Your task to perform on an android device: Open Google Maps Image 0: 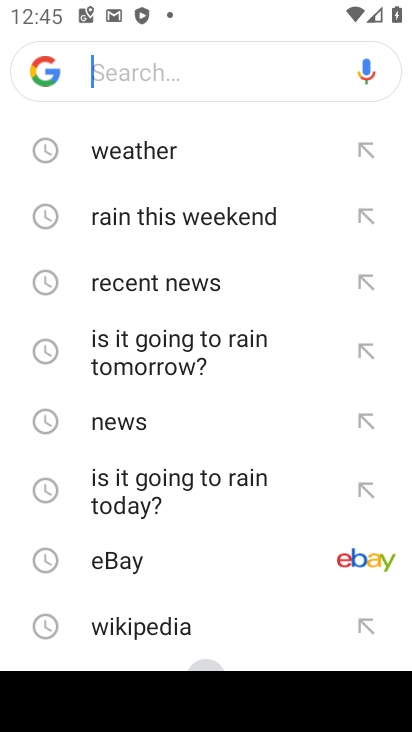
Step 0: press home button
Your task to perform on an android device: Open Google Maps Image 1: 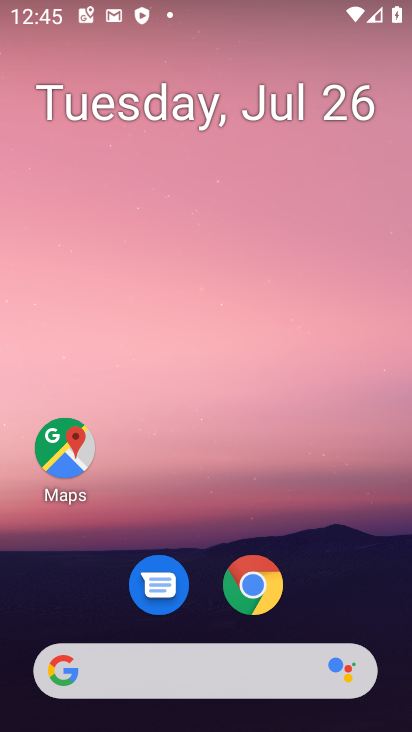
Step 1: click (63, 458)
Your task to perform on an android device: Open Google Maps Image 2: 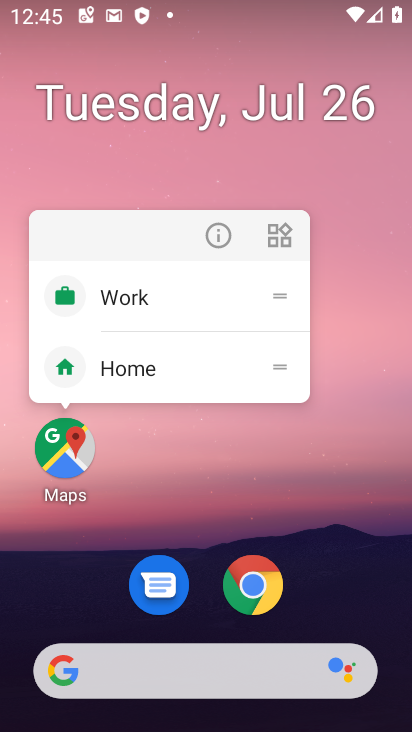
Step 2: click (71, 448)
Your task to perform on an android device: Open Google Maps Image 3: 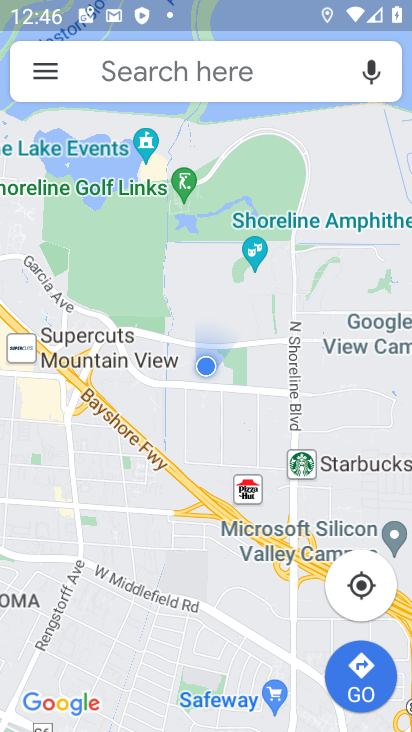
Step 3: task complete